Your task to perform on an android device: Open settings on Google Maps Image 0: 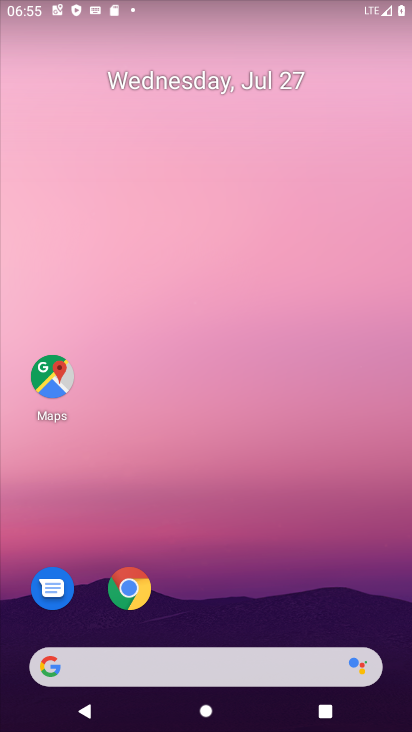
Step 0: drag from (274, 639) to (346, 29)
Your task to perform on an android device: Open settings on Google Maps Image 1: 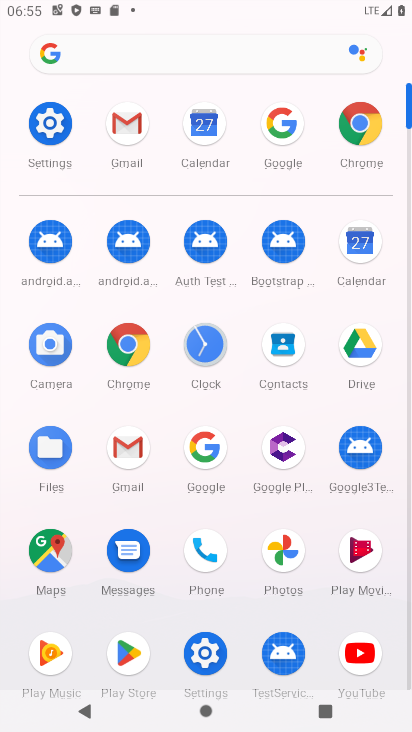
Step 1: click (36, 553)
Your task to perform on an android device: Open settings on Google Maps Image 2: 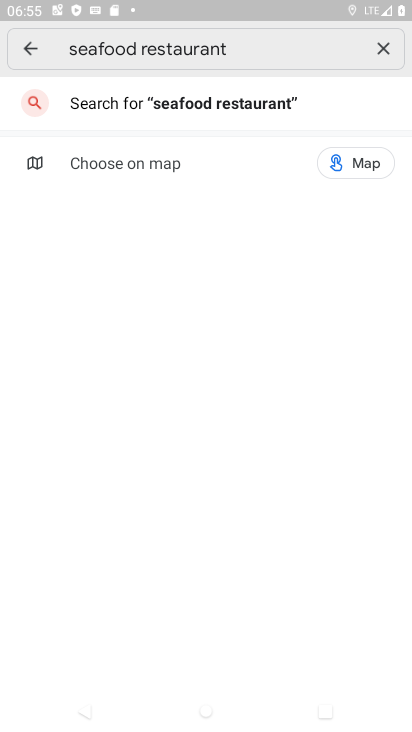
Step 2: press back button
Your task to perform on an android device: Open settings on Google Maps Image 3: 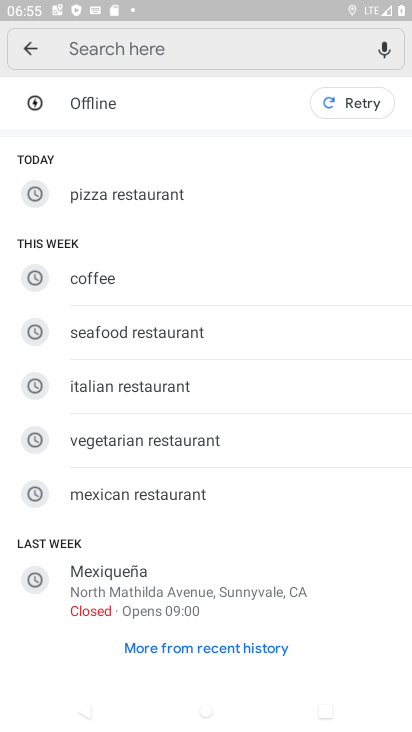
Step 3: press back button
Your task to perform on an android device: Open settings on Google Maps Image 4: 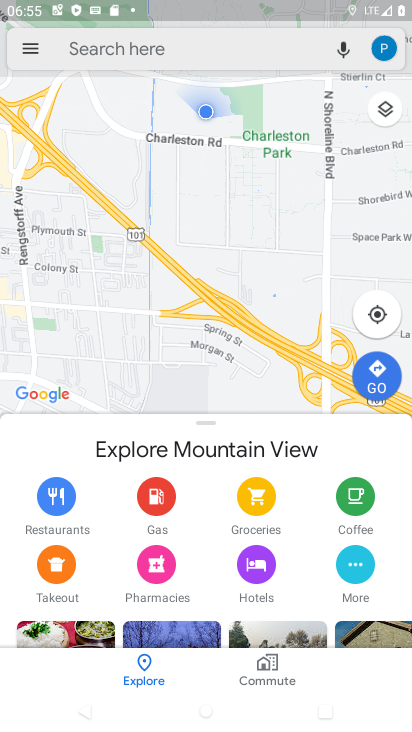
Step 4: click (35, 50)
Your task to perform on an android device: Open settings on Google Maps Image 5: 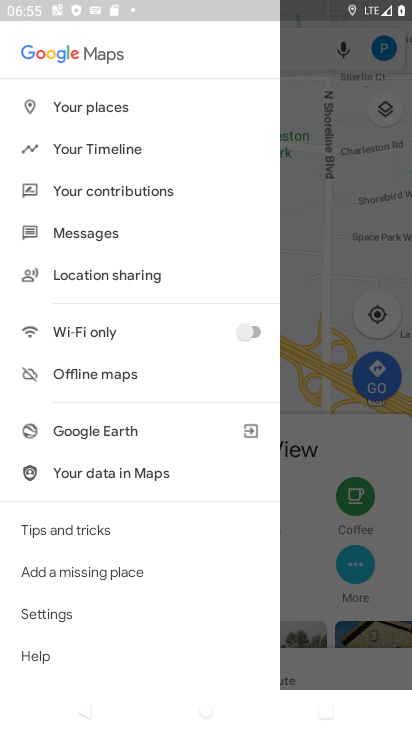
Step 5: click (160, 138)
Your task to perform on an android device: Open settings on Google Maps Image 6: 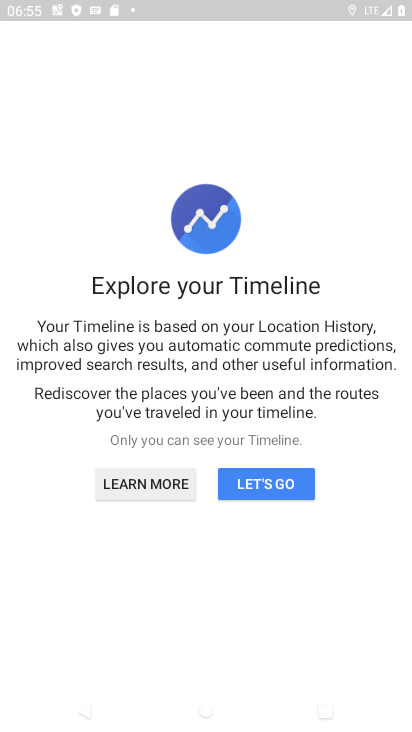
Step 6: click (287, 486)
Your task to perform on an android device: Open settings on Google Maps Image 7: 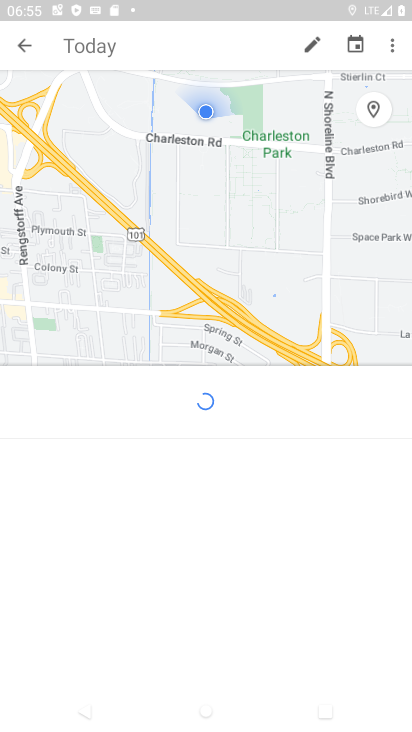
Step 7: click (388, 37)
Your task to perform on an android device: Open settings on Google Maps Image 8: 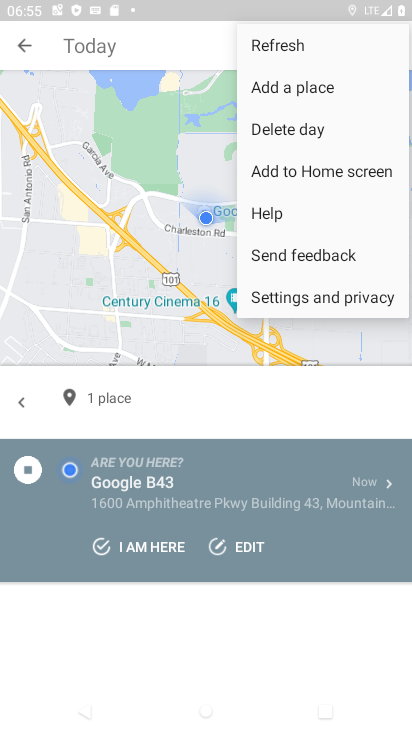
Step 8: click (341, 297)
Your task to perform on an android device: Open settings on Google Maps Image 9: 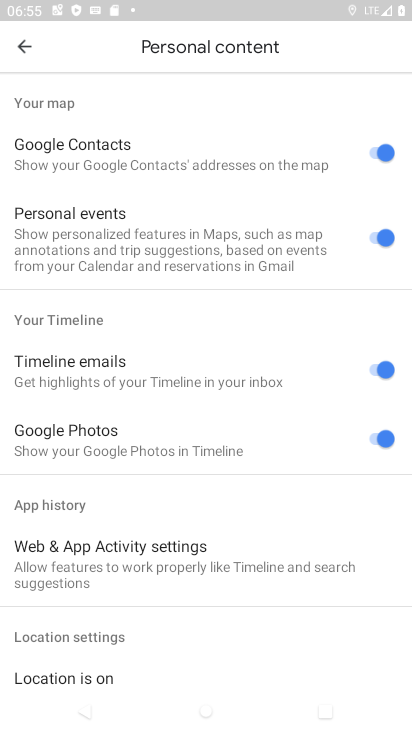
Step 9: task complete